Your task to perform on an android device: Open Wikipedia Image 0: 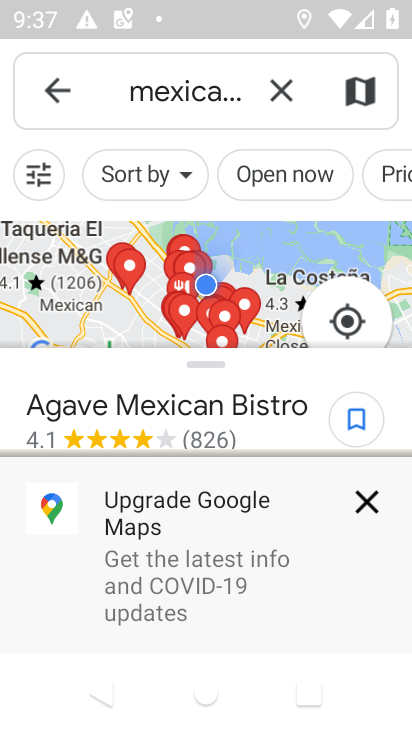
Step 0: press home button
Your task to perform on an android device: Open Wikipedia Image 1: 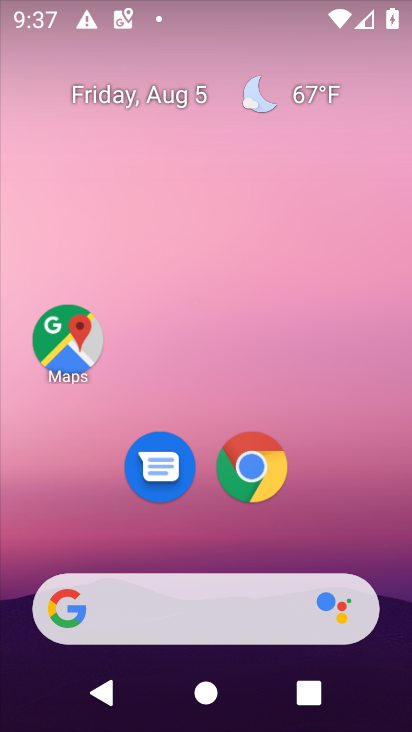
Step 1: click (162, 582)
Your task to perform on an android device: Open Wikipedia Image 2: 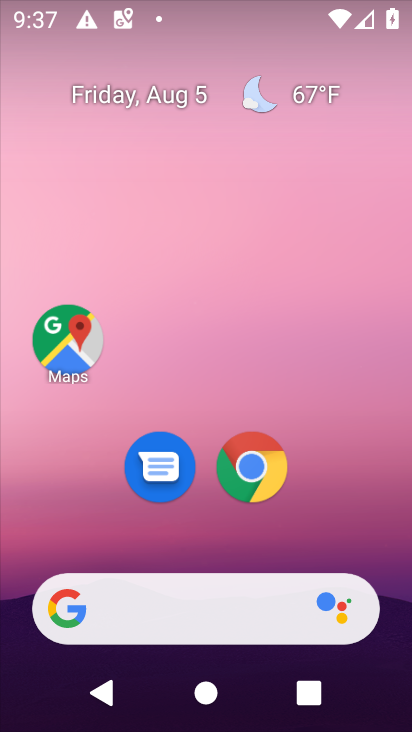
Step 2: drag from (162, 580) to (202, 234)
Your task to perform on an android device: Open Wikipedia Image 3: 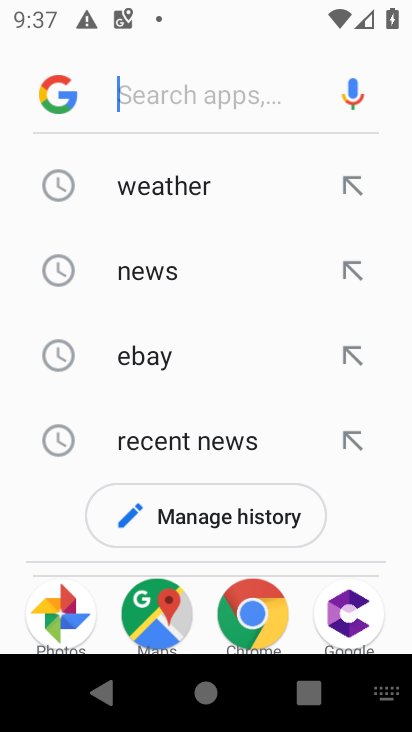
Step 3: click (239, 611)
Your task to perform on an android device: Open Wikipedia Image 4: 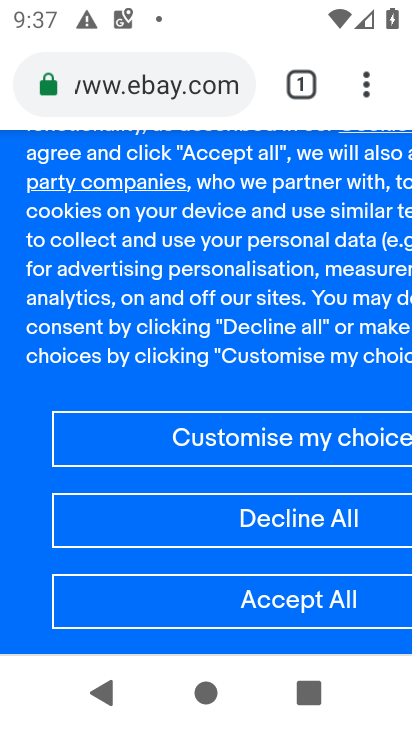
Step 4: drag from (292, 68) to (359, 68)
Your task to perform on an android device: Open Wikipedia Image 5: 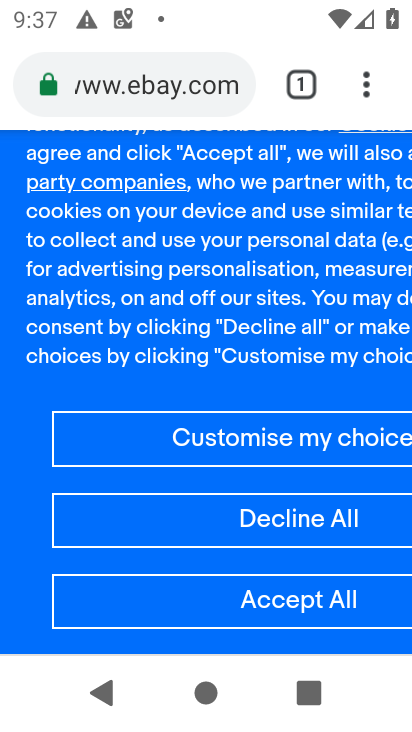
Step 5: click (304, 88)
Your task to perform on an android device: Open Wikipedia Image 6: 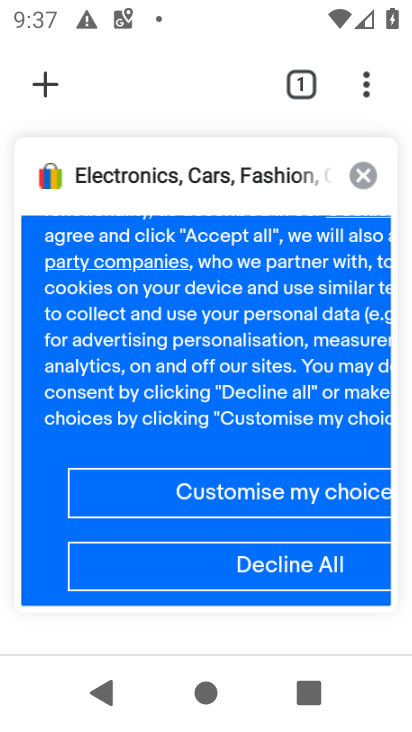
Step 6: click (372, 177)
Your task to perform on an android device: Open Wikipedia Image 7: 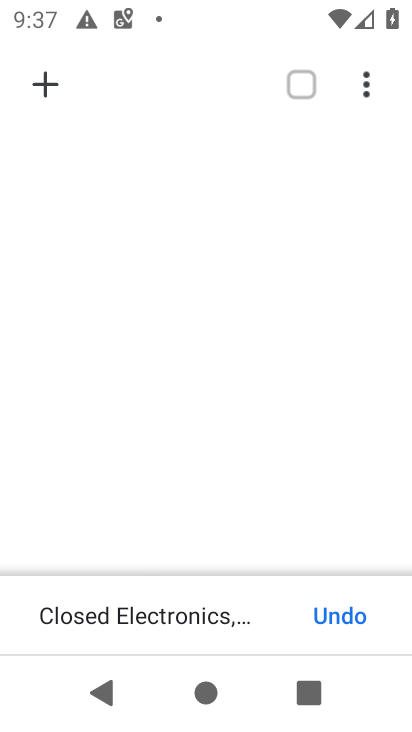
Step 7: click (49, 94)
Your task to perform on an android device: Open Wikipedia Image 8: 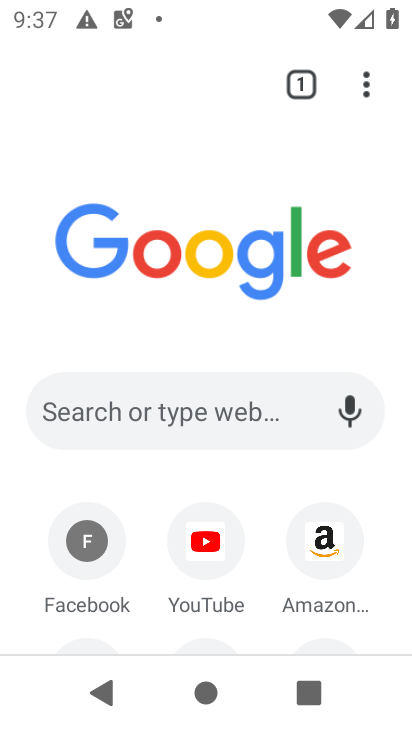
Step 8: drag from (248, 622) to (240, 343)
Your task to perform on an android device: Open Wikipedia Image 9: 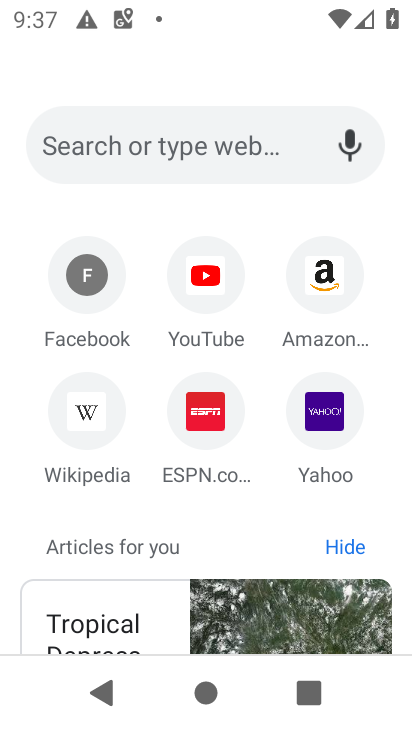
Step 9: click (89, 403)
Your task to perform on an android device: Open Wikipedia Image 10: 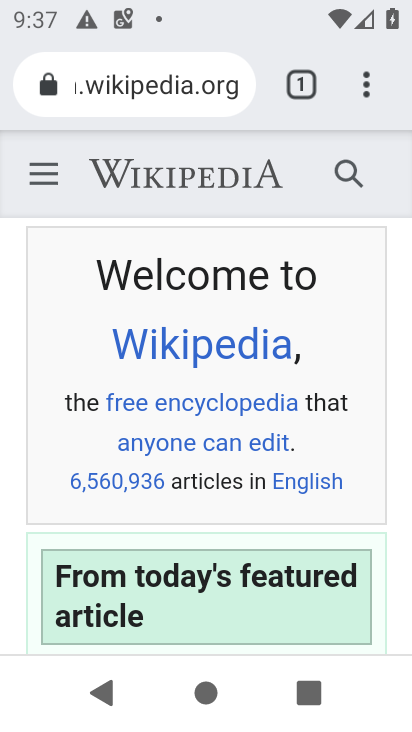
Step 10: task complete